Your task to perform on an android device: check battery use Image 0: 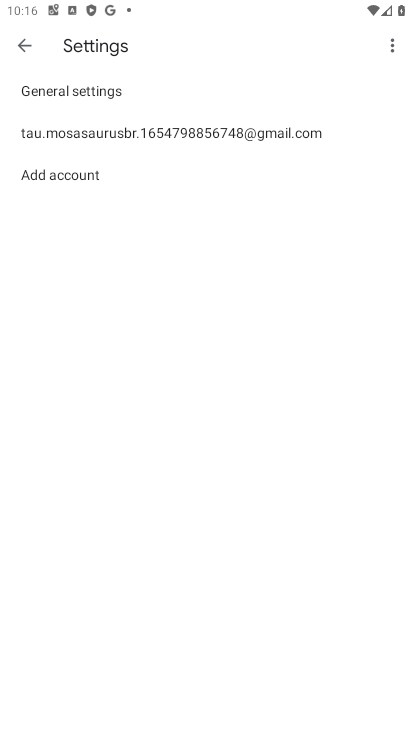
Step 0: press home button
Your task to perform on an android device: check battery use Image 1: 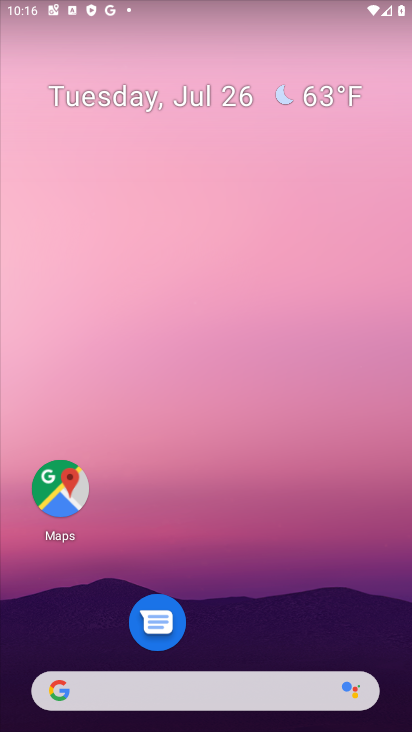
Step 1: drag from (287, 524) to (275, 2)
Your task to perform on an android device: check battery use Image 2: 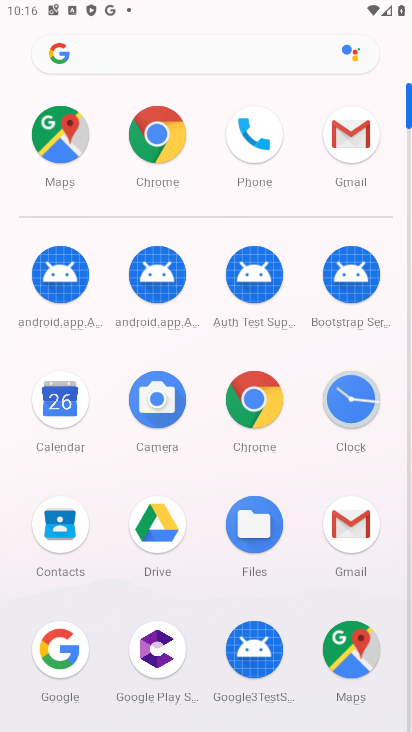
Step 2: drag from (395, 470) to (313, 78)
Your task to perform on an android device: check battery use Image 3: 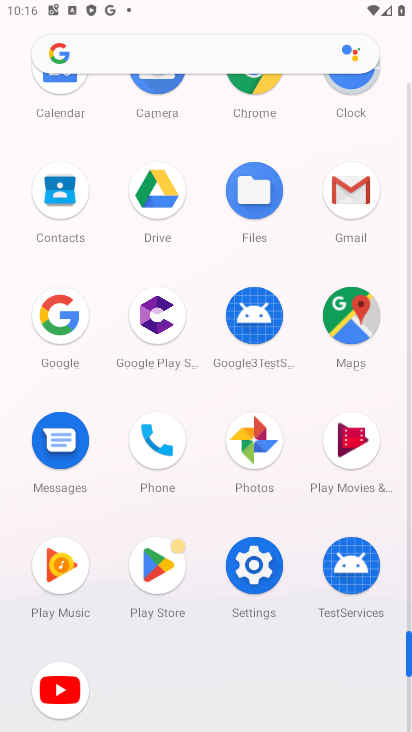
Step 3: click (268, 550)
Your task to perform on an android device: check battery use Image 4: 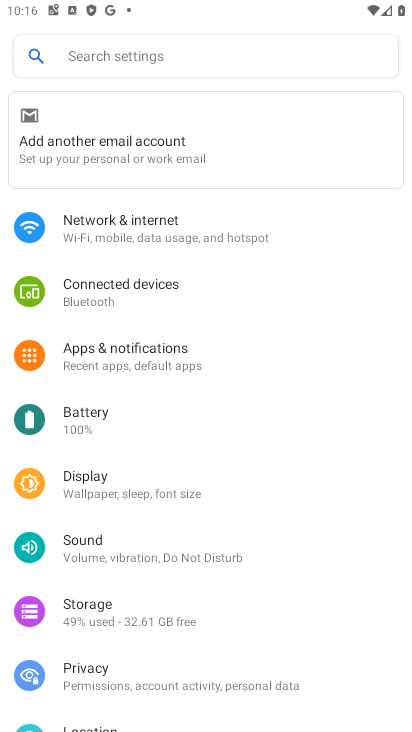
Step 4: click (76, 421)
Your task to perform on an android device: check battery use Image 5: 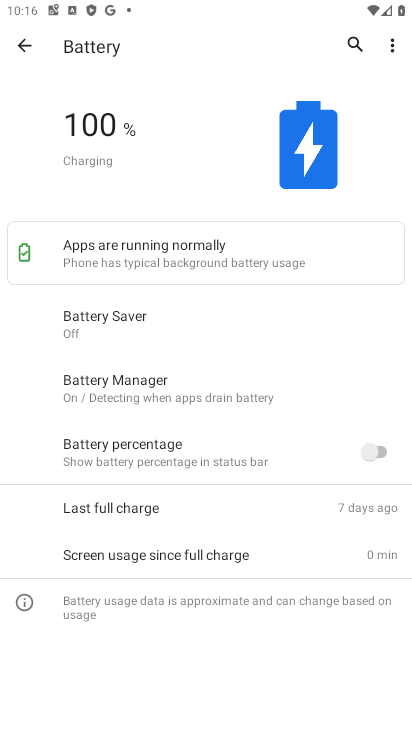
Step 5: task complete